Your task to perform on an android device: change timer sound Image 0: 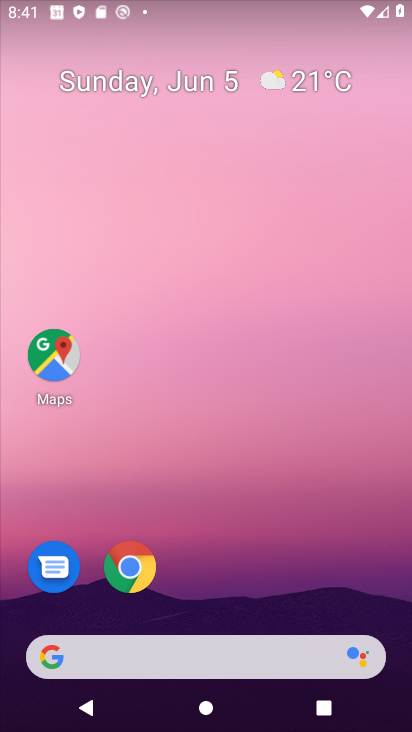
Step 0: drag from (252, 642) to (252, 314)
Your task to perform on an android device: change timer sound Image 1: 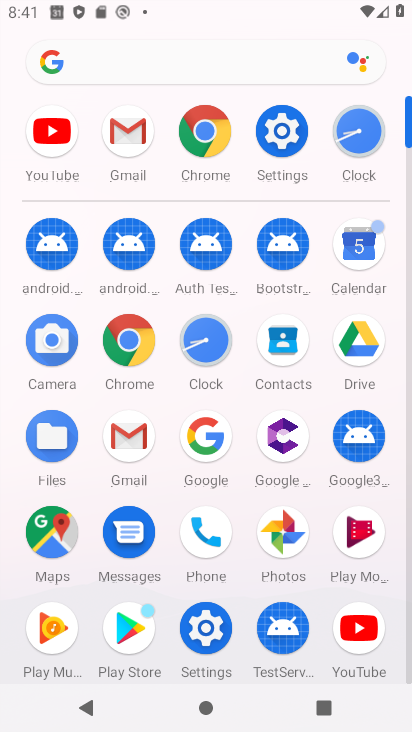
Step 1: click (278, 130)
Your task to perform on an android device: change timer sound Image 2: 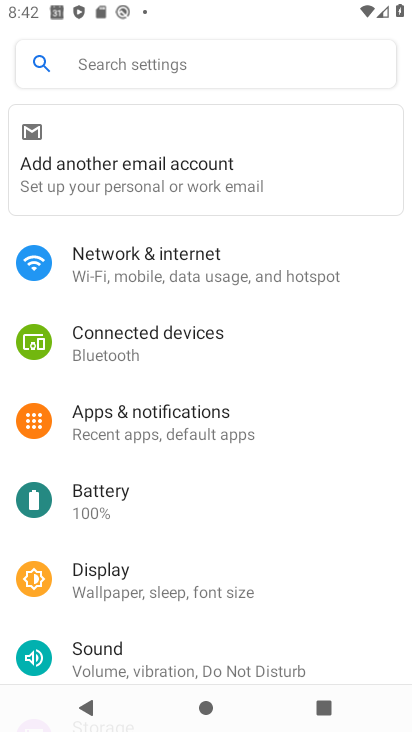
Step 2: press home button
Your task to perform on an android device: change timer sound Image 3: 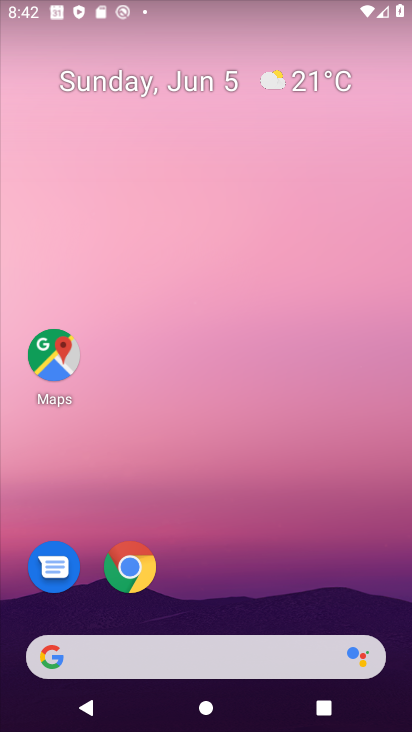
Step 3: drag from (212, 622) to (226, 405)
Your task to perform on an android device: change timer sound Image 4: 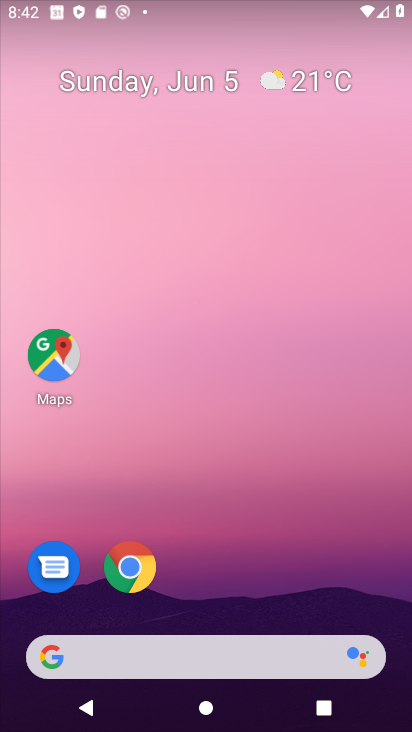
Step 4: drag from (257, 639) to (248, 335)
Your task to perform on an android device: change timer sound Image 5: 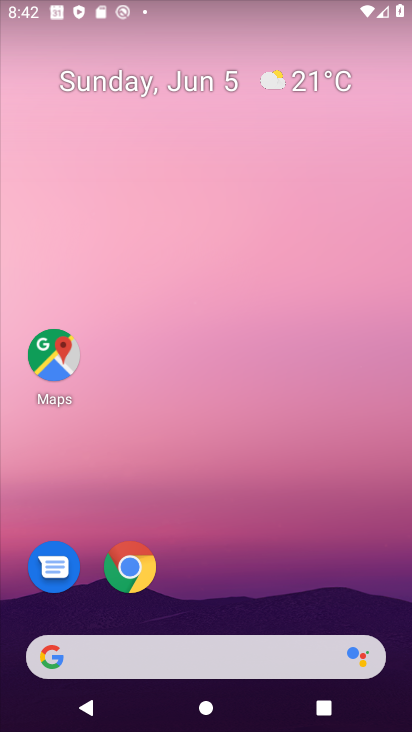
Step 5: drag from (180, 626) to (207, 315)
Your task to perform on an android device: change timer sound Image 6: 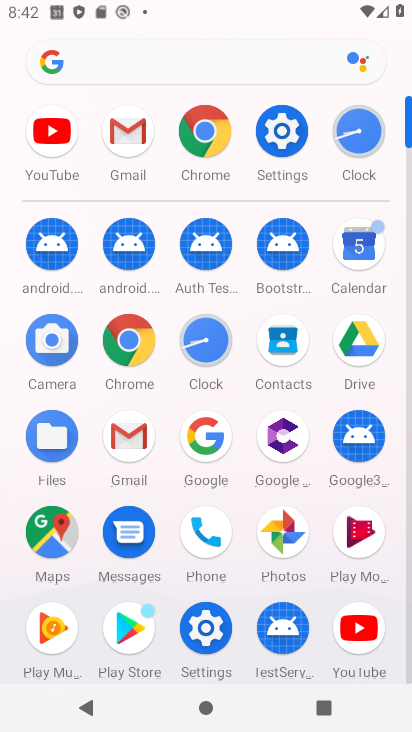
Step 6: click (199, 342)
Your task to perform on an android device: change timer sound Image 7: 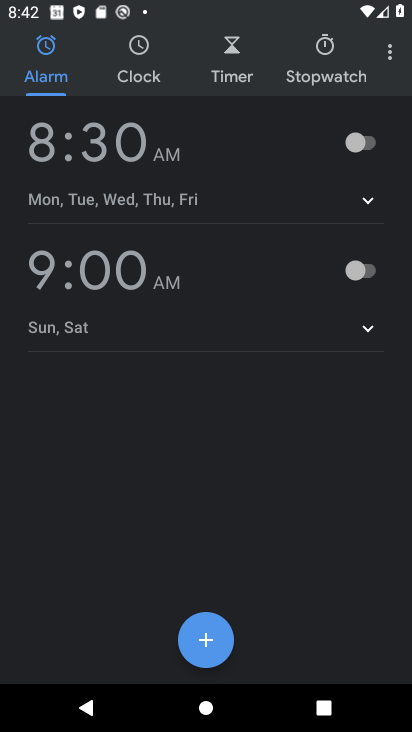
Step 7: click (379, 56)
Your task to perform on an android device: change timer sound Image 8: 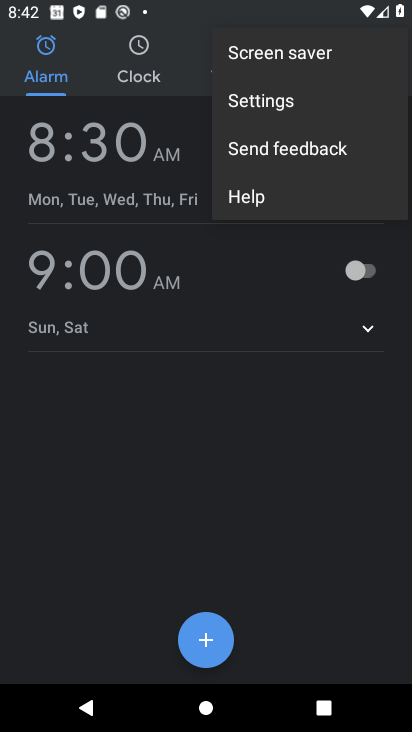
Step 8: click (283, 108)
Your task to perform on an android device: change timer sound Image 9: 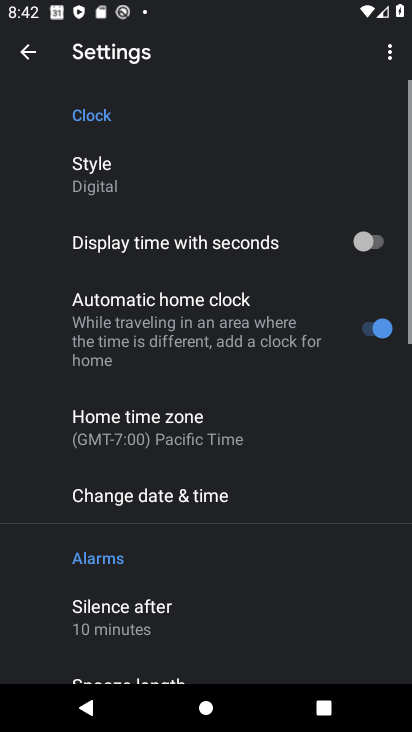
Step 9: drag from (156, 561) to (177, 233)
Your task to perform on an android device: change timer sound Image 10: 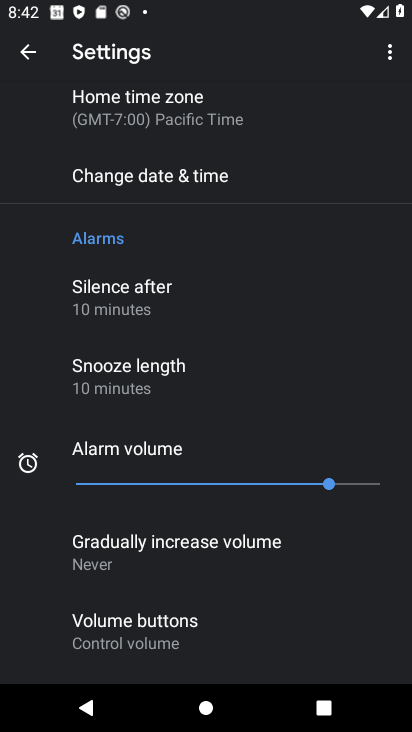
Step 10: drag from (200, 575) to (209, 414)
Your task to perform on an android device: change timer sound Image 11: 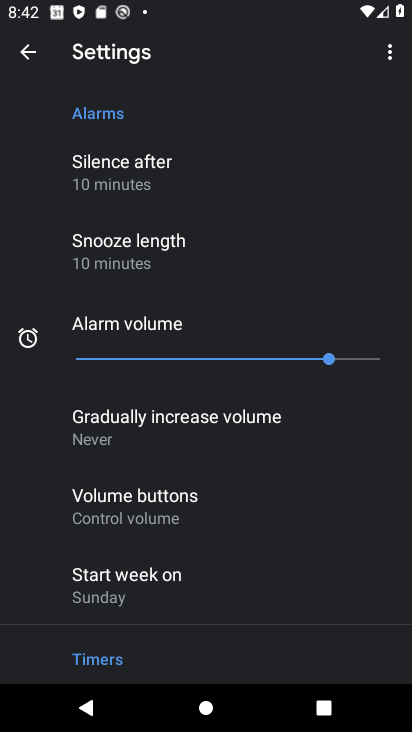
Step 11: drag from (143, 654) to (113, 382)
Your task to perform on an android device: change timer sound Image 12: 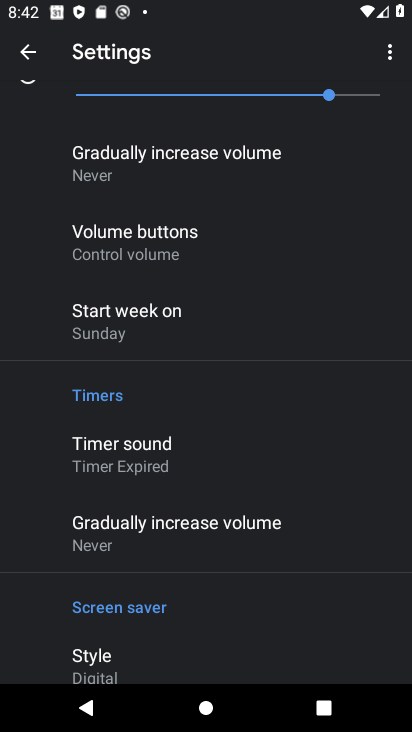
Step 12: click (142, 463)
Your task to perform on an android device: change timer sound Image 13: 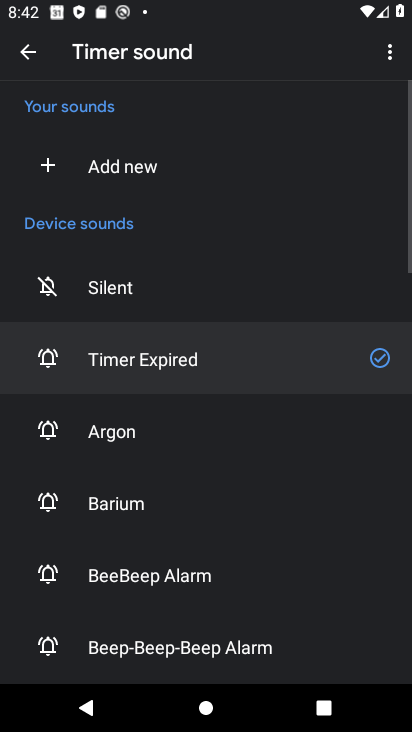
Step 13: click (128, 433)
Your task to perform on an android device: change timer sound Image 14: 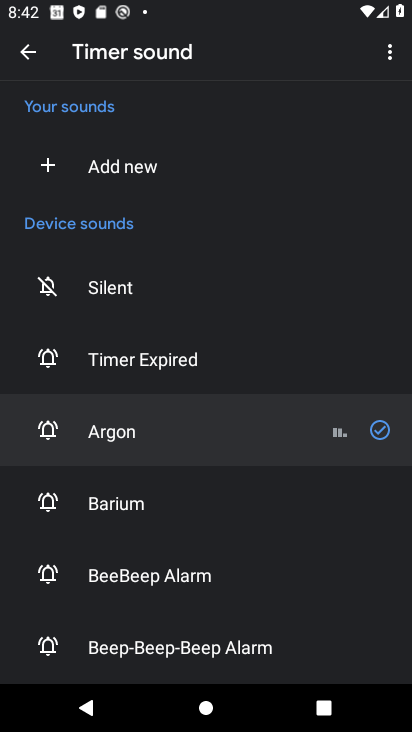
Step 14: task complete